Your task to perform on an android device: Show the shopping cart on walmart. Add "lg ultragear" to the cart on walmart Image 0: 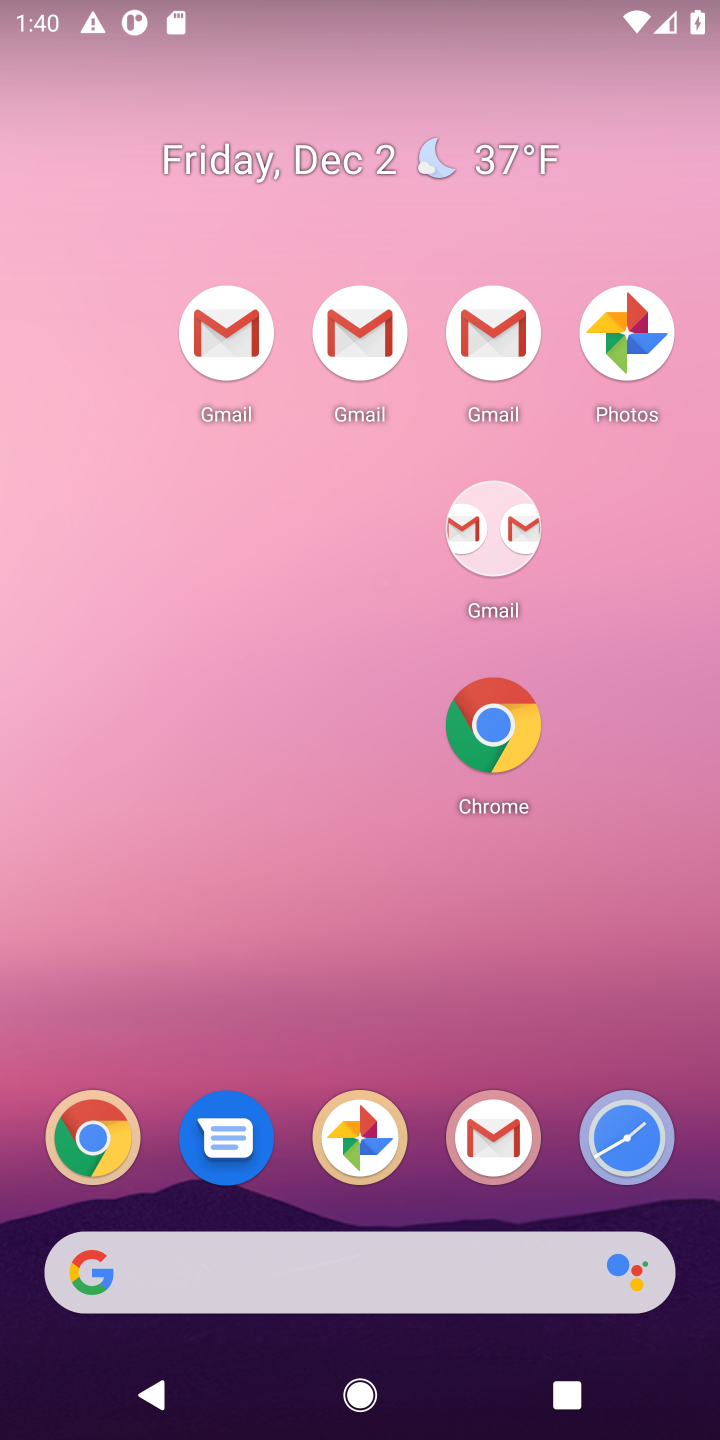
Step 0: drag from (342, 1031) to (400, 471)
Your task to perform on an android device: Show the shopping cart on walmart. Add "lg ultragear" to the cart on walmart Image 1: 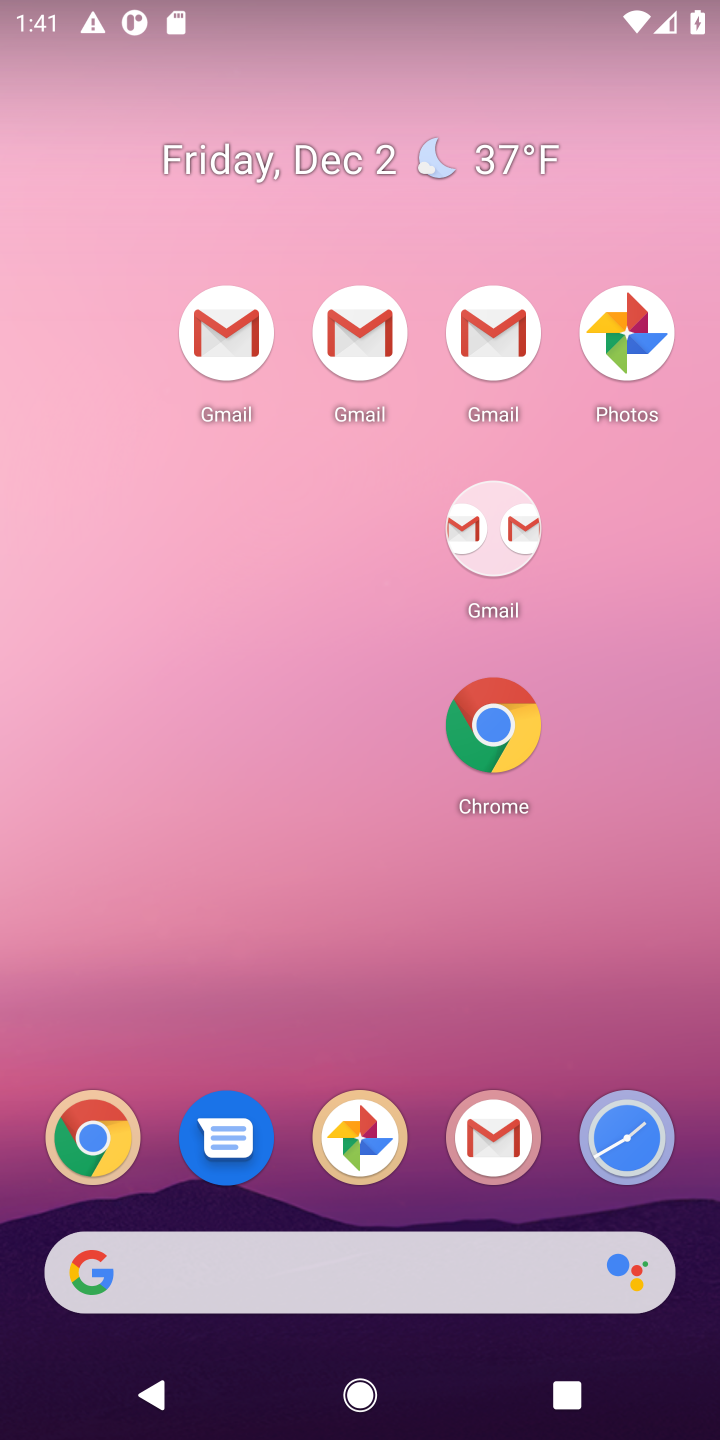
Step 1: drag from (297, 1057) to (451, 101)
Your task to perform on an android device: Show the shopping cart on walmart. Add "lg ultragear" to the cart on walmart Image 2: 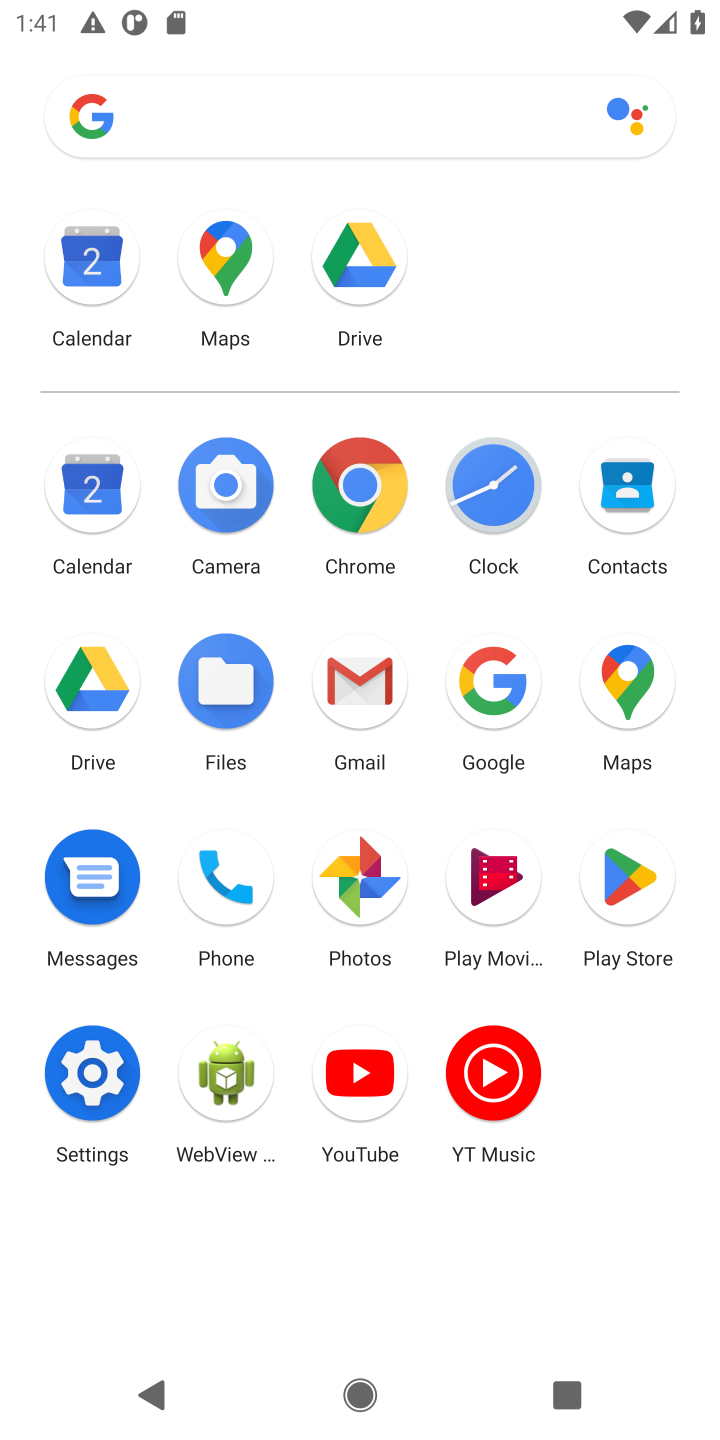
Step 2: click (506, 716)
Your task to perform on an android device: Show the shopping cart on walmart. Add "lg ultragear" to the cart on walmart Image 3: 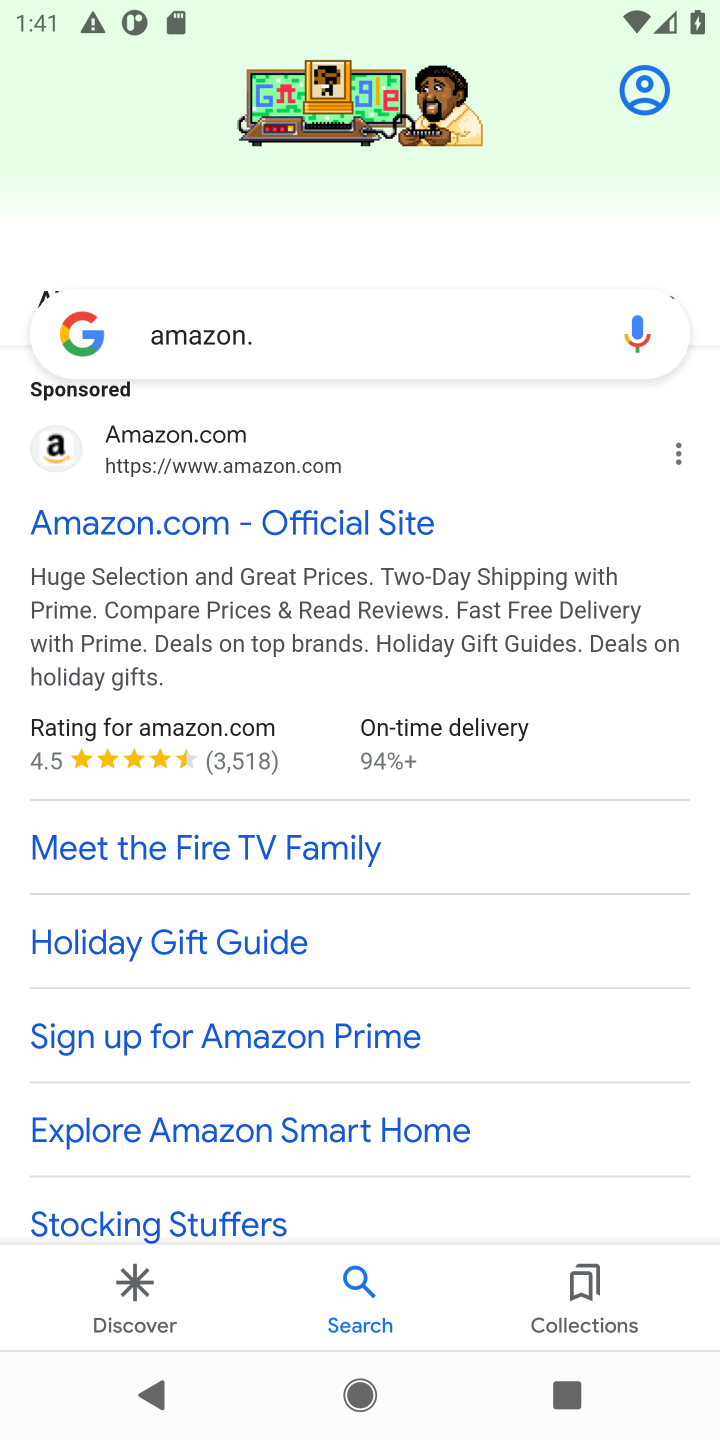
Step 3: click (523, 341)
Your task to perform on an android device: Show the shopping cart on walmart. Add "lg ultragear" to the cart on walmart Image 4: 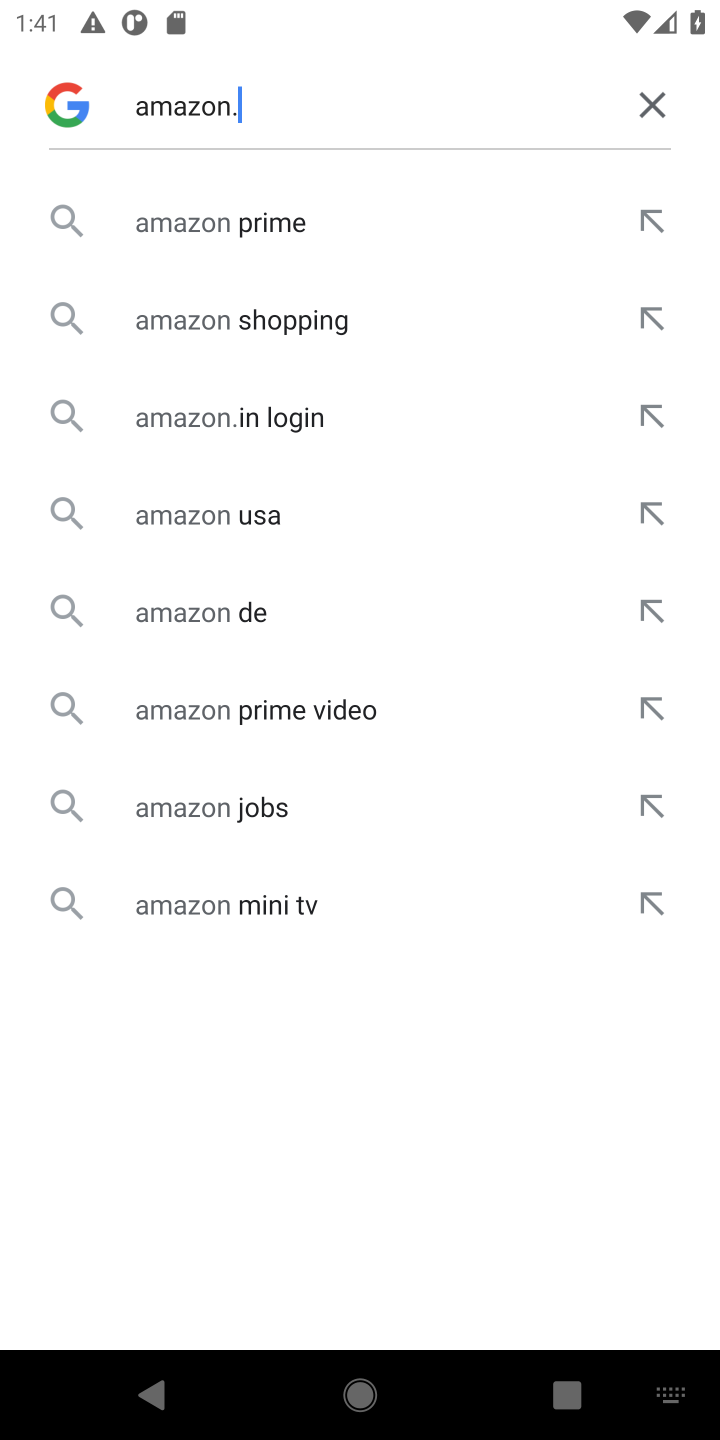
Step 4: click (660, 107)
Your task to perform on an android device: Show the shopping cart on walmart. Add "lg ultragear" to the cart on walmart Image 5: 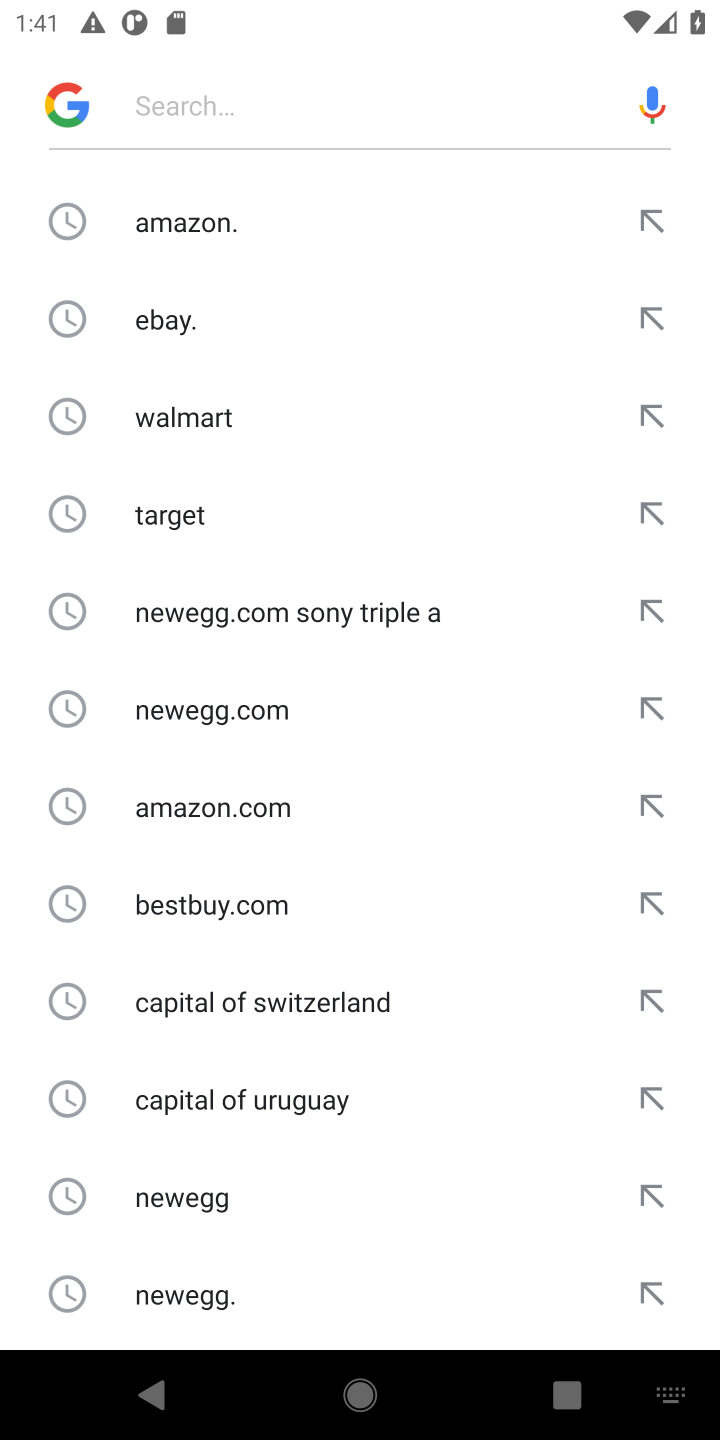
Step 5: click (241, 435)
Your task to perform on an android device: Show the shopping cart on walmart. Add "lg ultragear" to the cart on walmart Image 6: 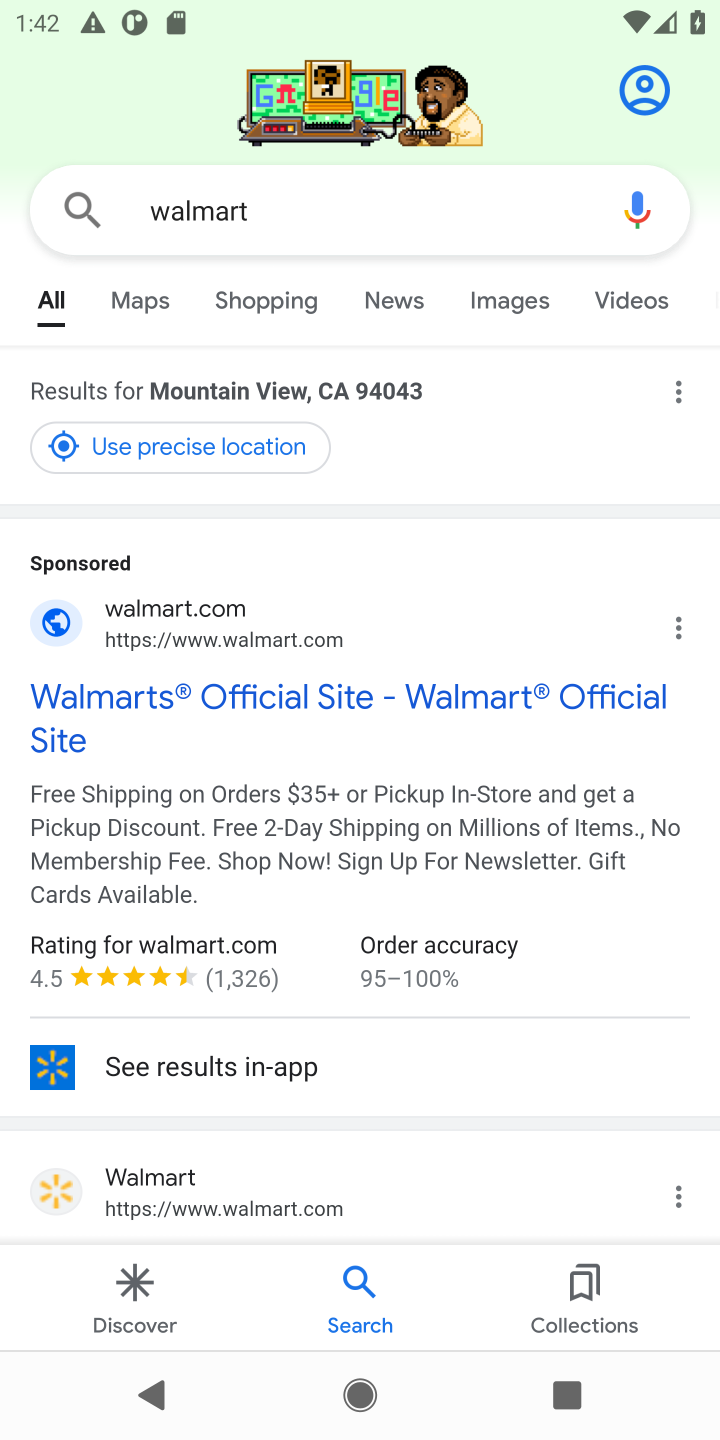
Step 6: click (460, 725)
Your task to perform on an android device: Show the shopping cart on walmart. Add "lg ultragear" to the cart on walmart Image 7: 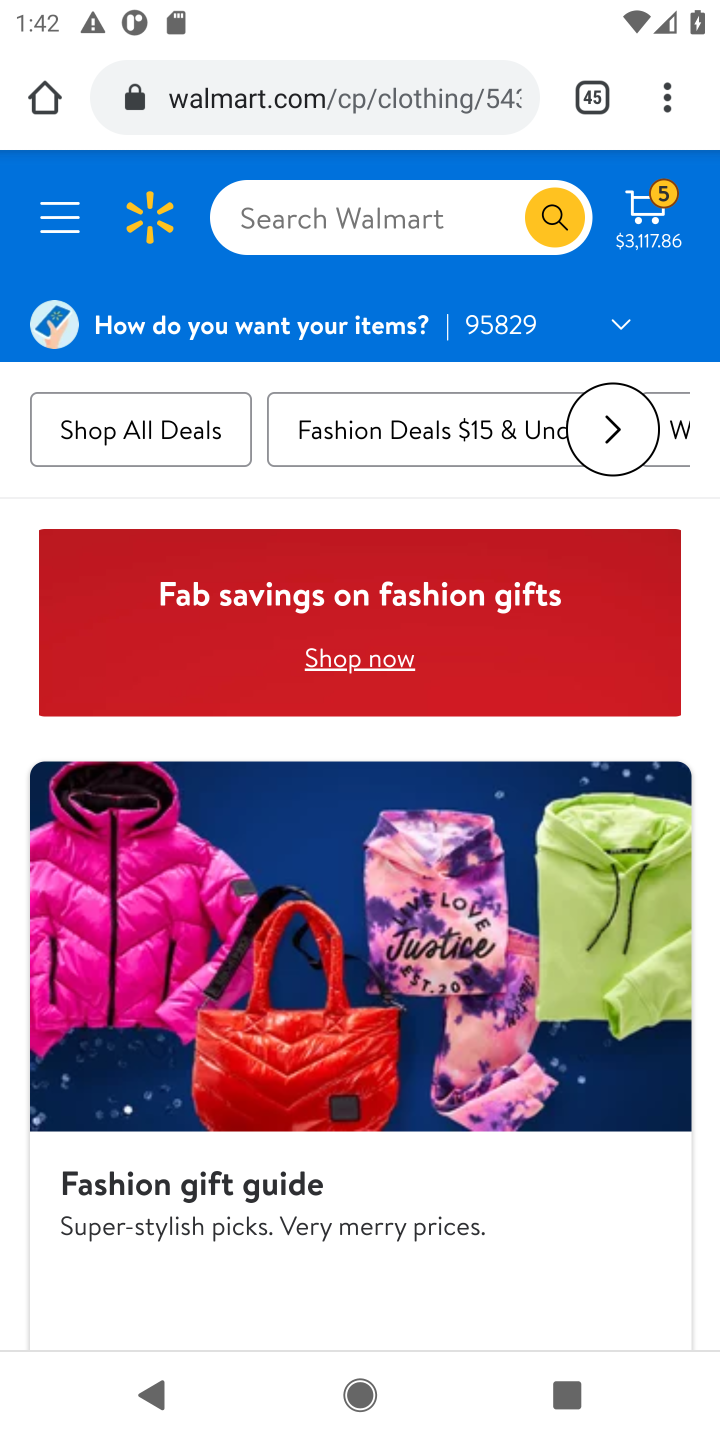
Step 7: click (323, 224)
Your task to perform on an android device: Show the shopping cart on walmart. Add "lg ultragear" to the cart on walmart Image 8: 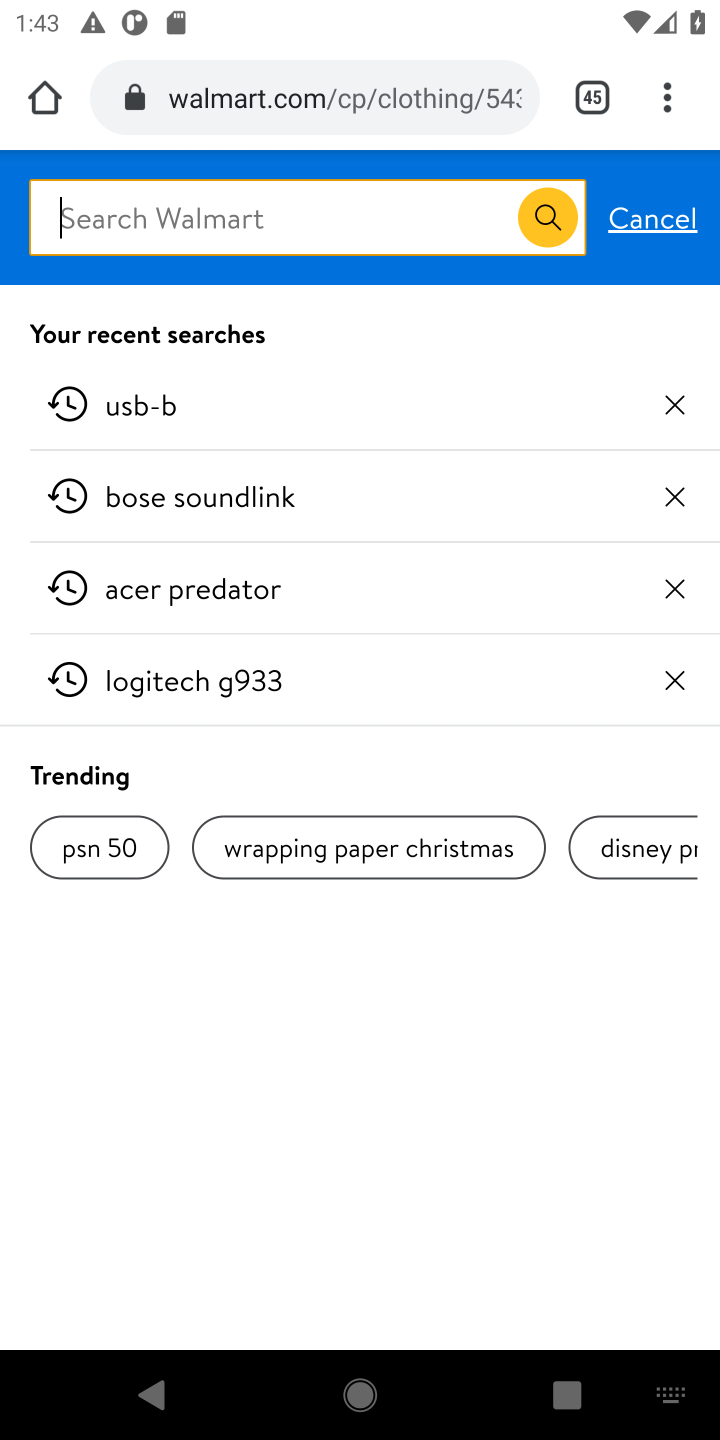
Step 8: type "lg ultragear"
Your task to perform on an android device: Show the shopping cart on walmart. Add "lg ultragear" to the cart on walmart Image 9: 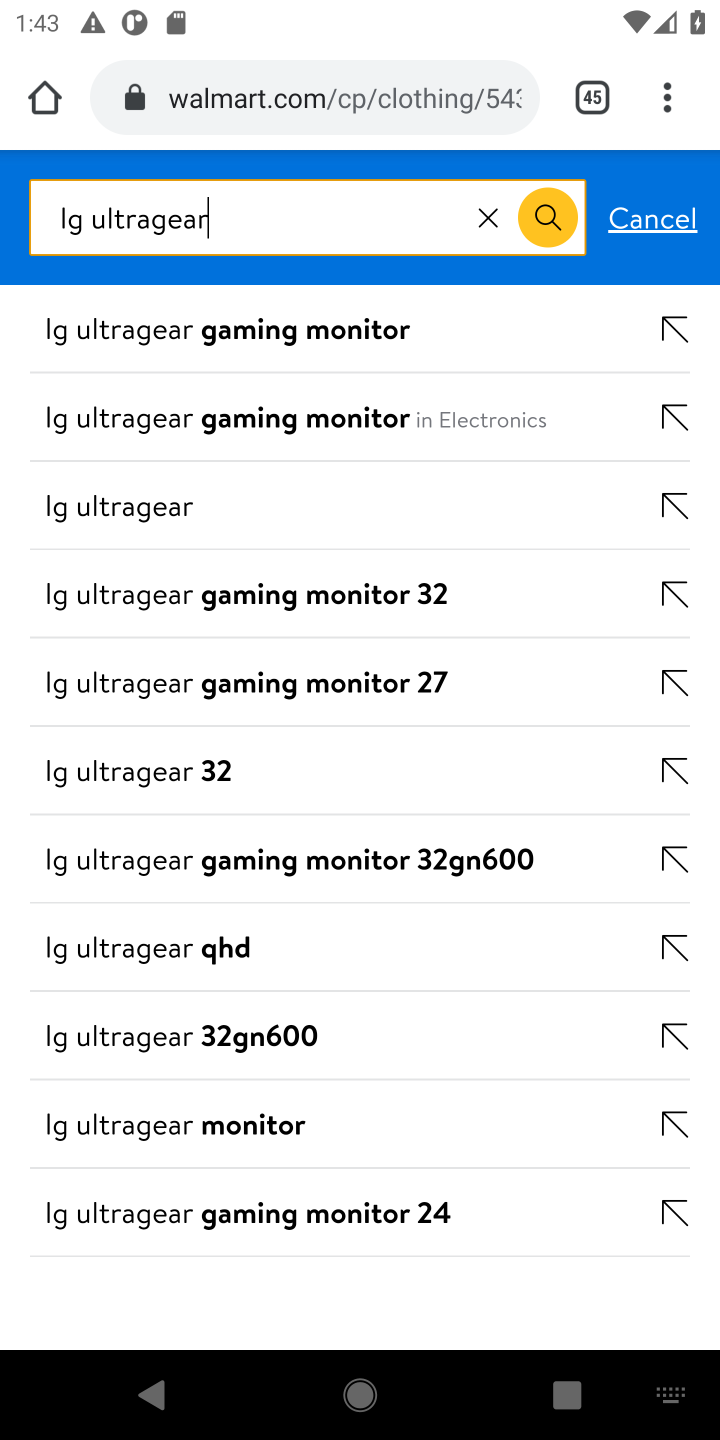
Step 9: click (268, 526)
Your task to perform on an android device: Show the shopping cart on walmart. Add "lg ultragear" to the cart on walmart Image 10: 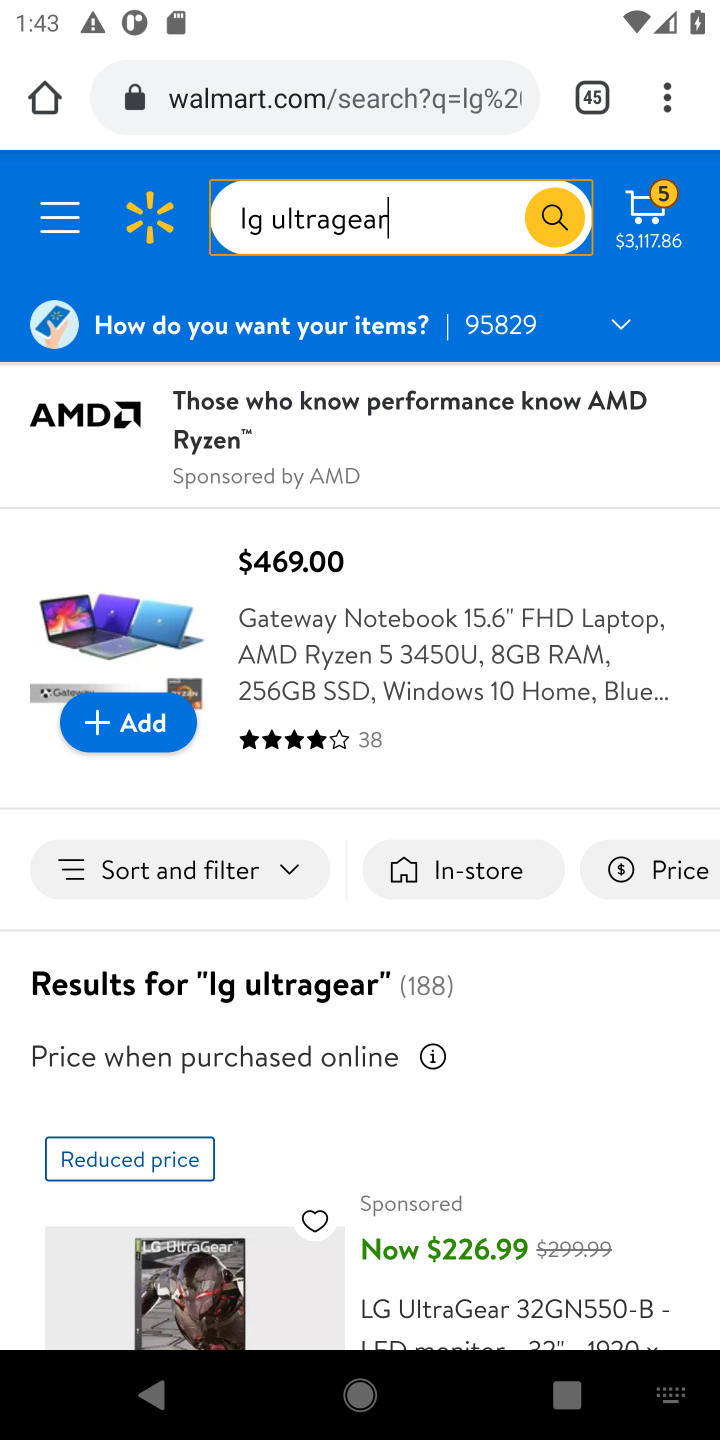
Step 10: drag from (573, 1065) to (592, 699)
Your task to perform on an android device: Show the shopping cart on walmart. Add "lg ultragear" to the cart on walmart Image 11: 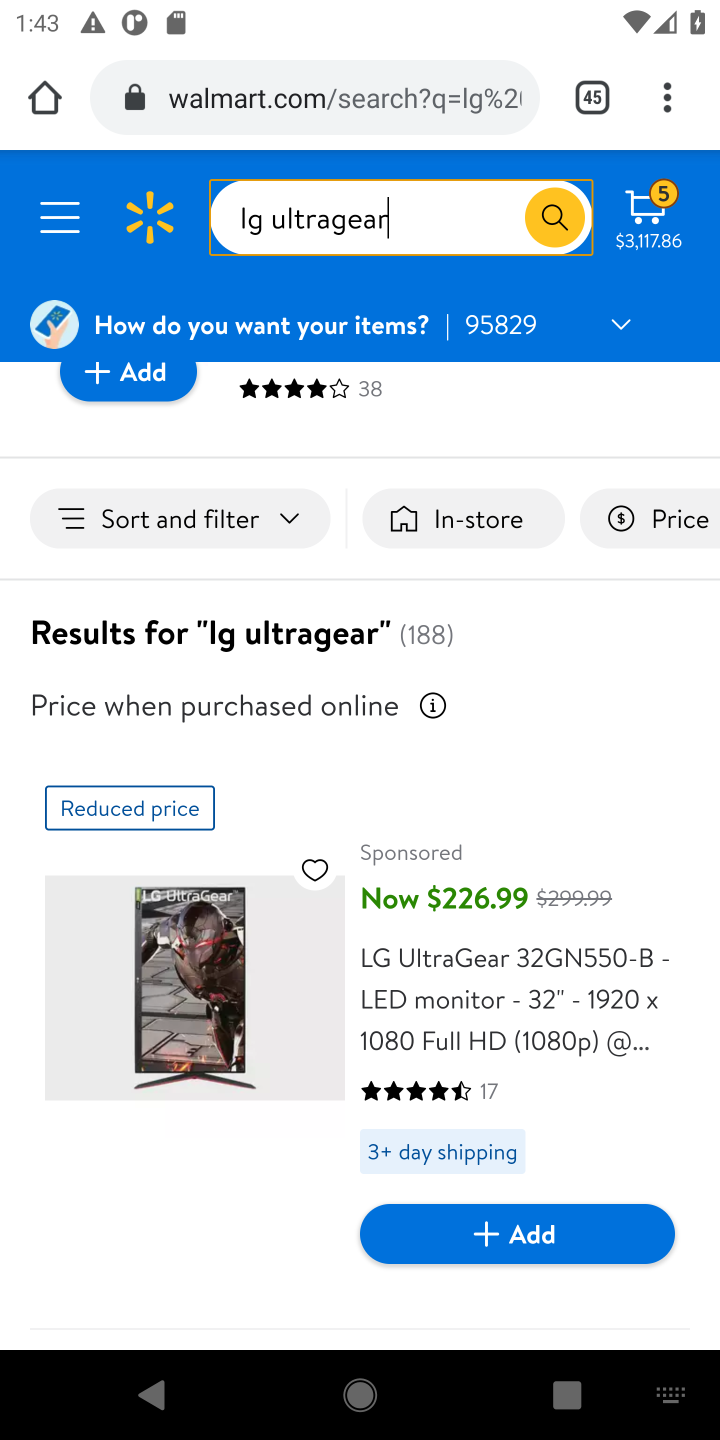
Step 11: click (612, 1223)
Your task to perform on an android device: Show the shopping cart on walmart. Add "lg ultragear" to the cart on walmart Image 12: 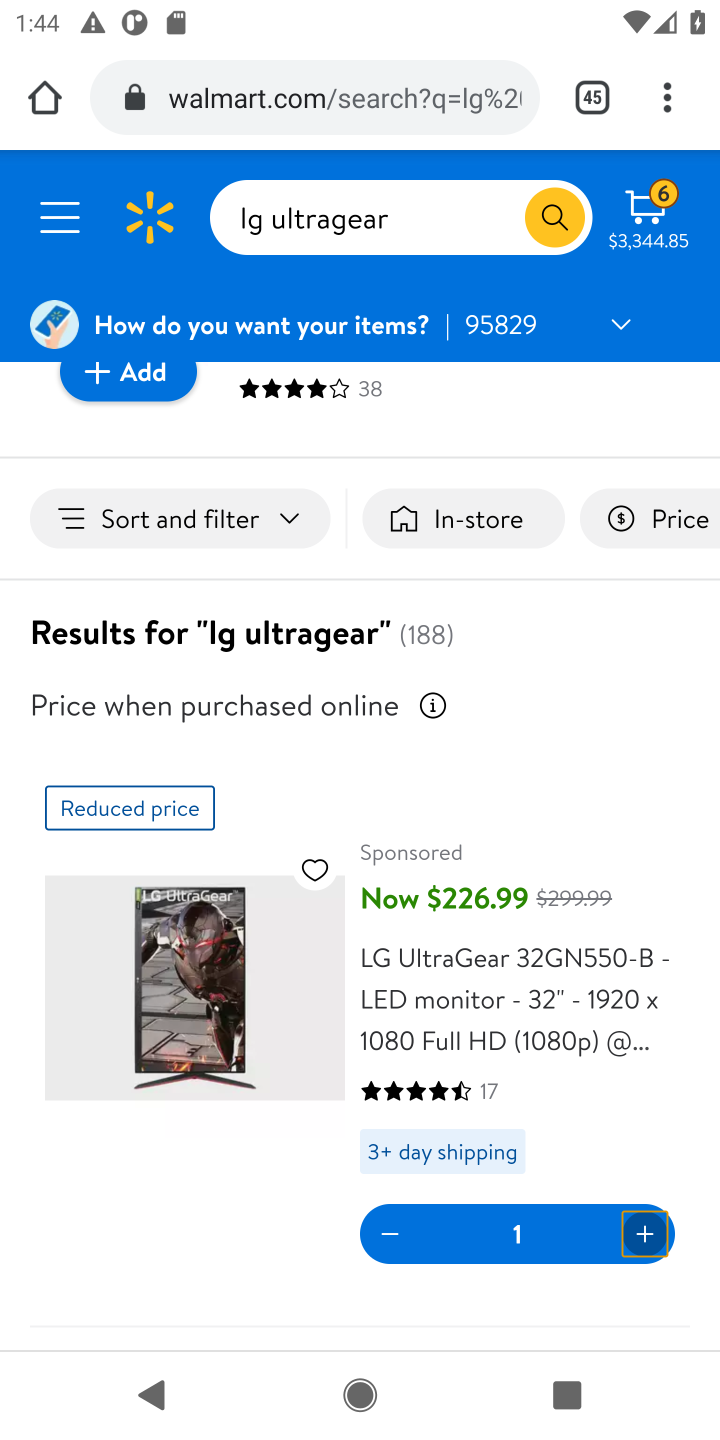
Step 12: task complete